Your task to perform on an android device: Open calendar and show me the fourth week of next month Image 0: 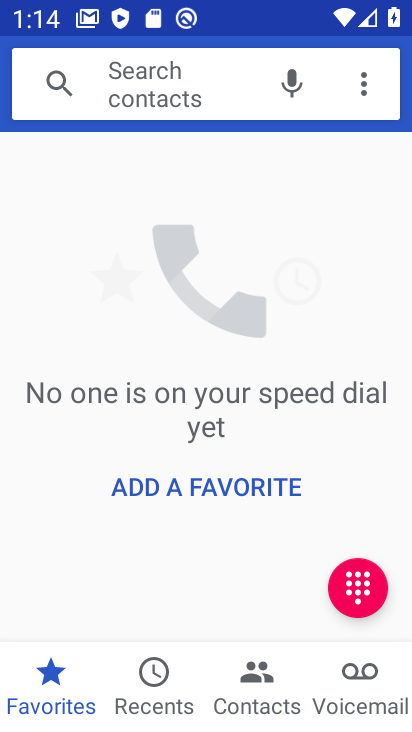
Step 0: press home button
Your task to perform on an android device: Open calendar and show me the fourth week of next month Image 1: 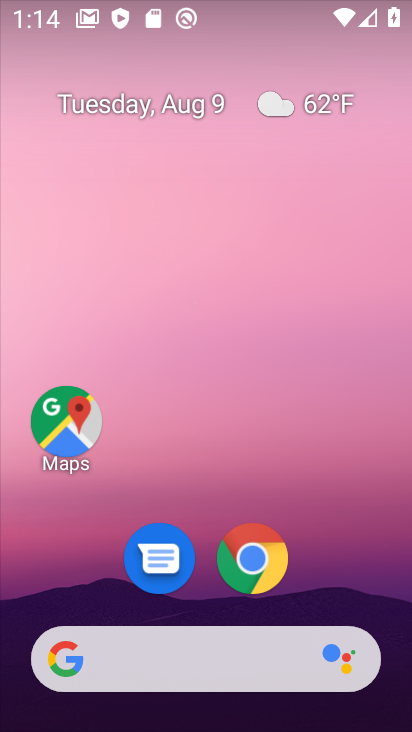
Step 1: drag from (356, 611) to (284, 267)
Your task to perform on an android device: Open calendar and show me the fourth week of next month Image 2: 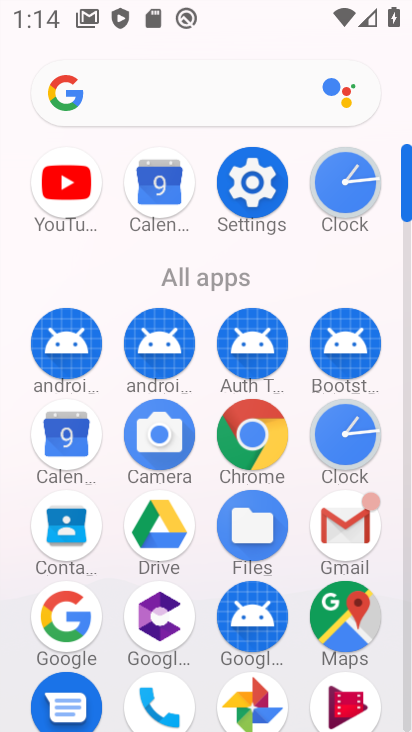
Step 2: click (72, 443)
Your task to perform on an android device: Open calendar and show me the fourth week of next month Image 3: 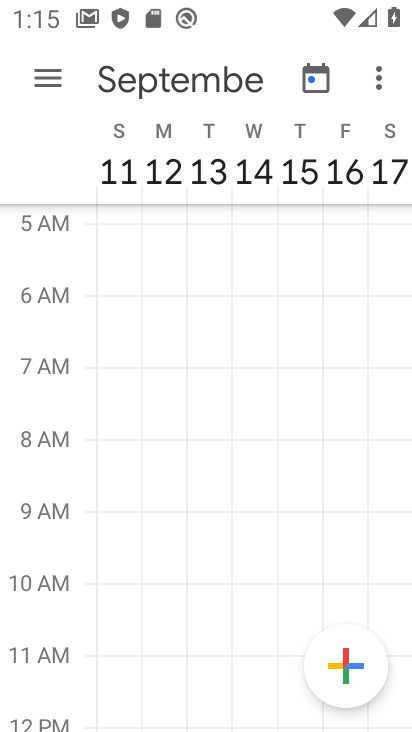
Step 3: click (184, 60)
Your task to perform on an android device: Open calendar and show me the fourth week of next month Image 4: 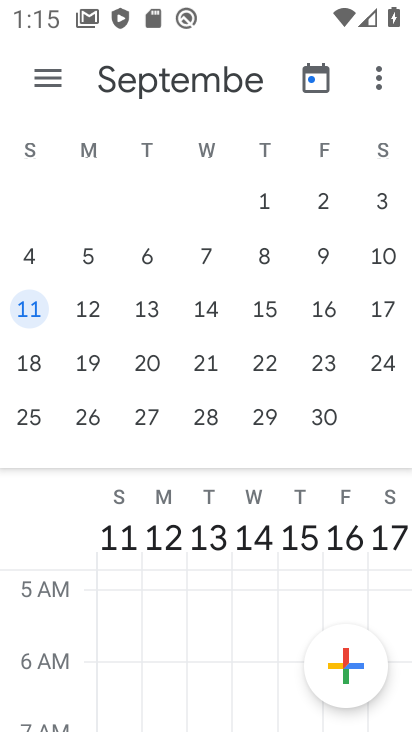
Step 4: click (266, 423)
Your task to perform on an android device: Open calendar and show me the fourth week of next month Image 5: 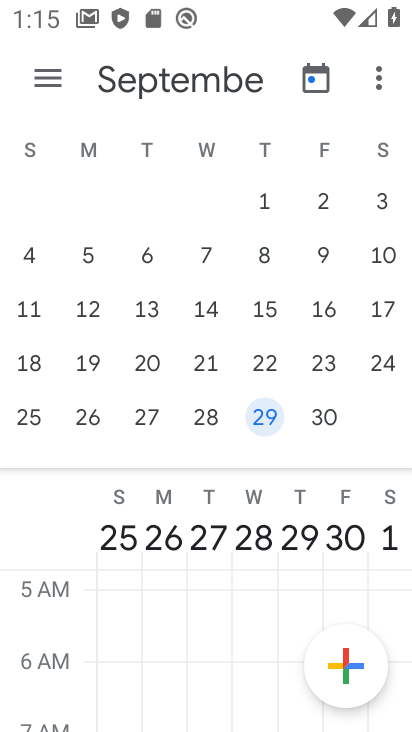
Step 5: task complete